Your task to perform on an android device: Turn off the flashlight Image 0: 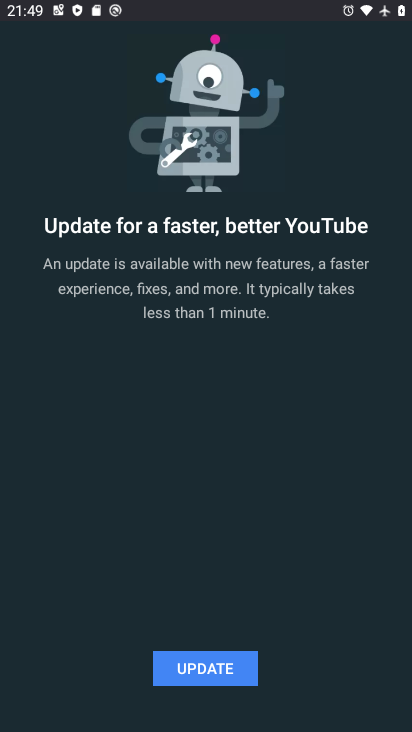
Step 0: press home button
Your task to perform on an android device: Turn off the flashlight Image 1: 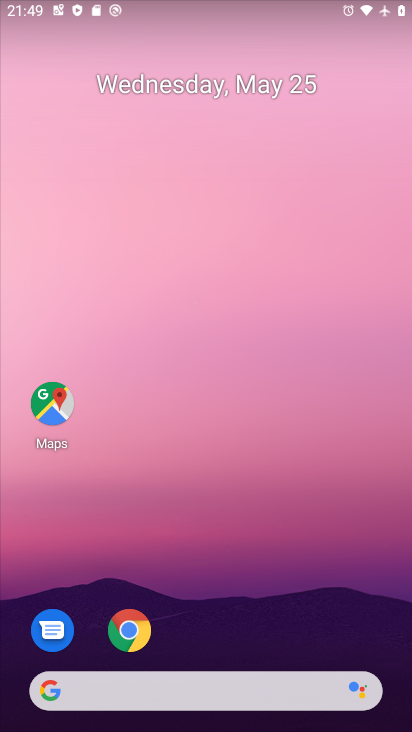
Step 1: drag from (213, 634) to (220, 263)
Your task to perform on an android device: Turn off the flashlight Image 2: 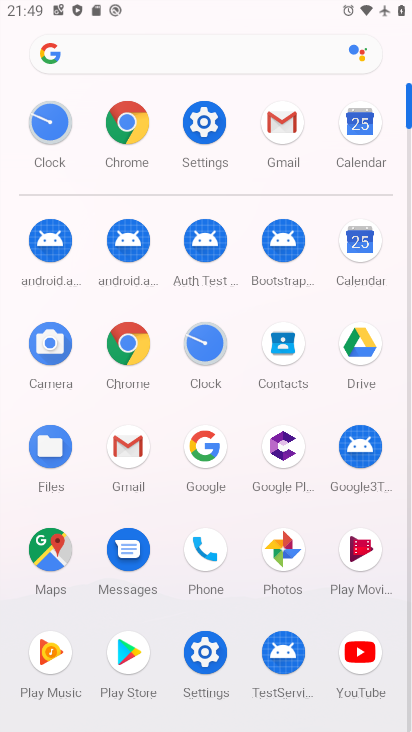
Step 2: click (211, 110)
Your task to perform on an android device: Turn off the flashlight Image 3: 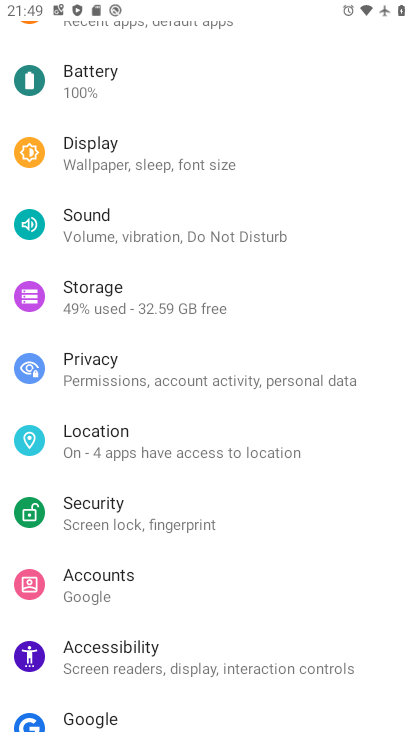
Step 3: task complete